Your task to perform on an android device: toggle translation in the chrome app Image 0: 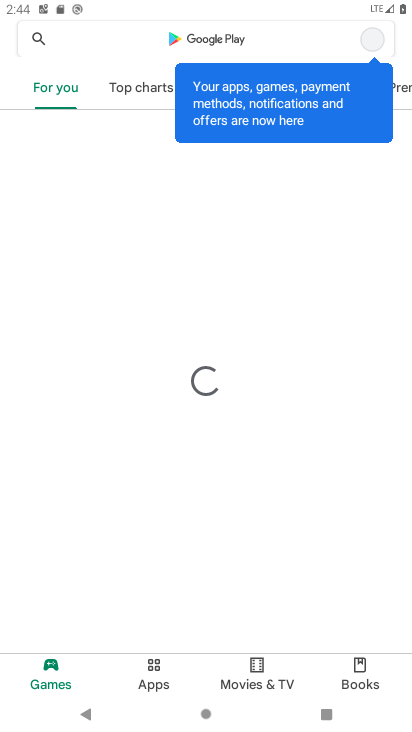
Step 0: press home button
Your task to perform on an android device: toggle translation in the chrome app Image 1: 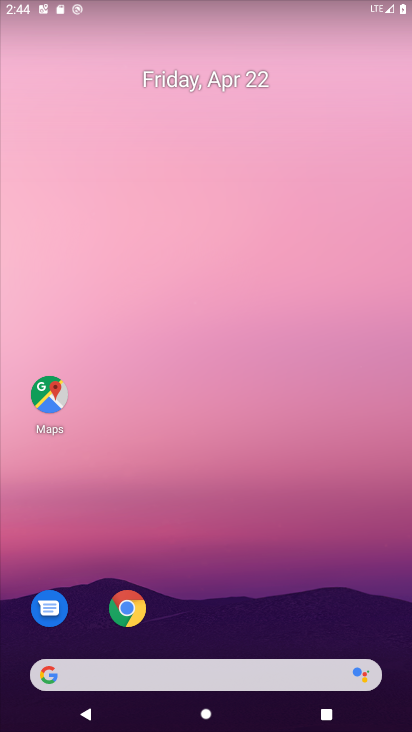
Step 1: drag from (267, 685) to (234, 132)
Your task to perform on an android device: toggle translation in the chrome app Image 2: 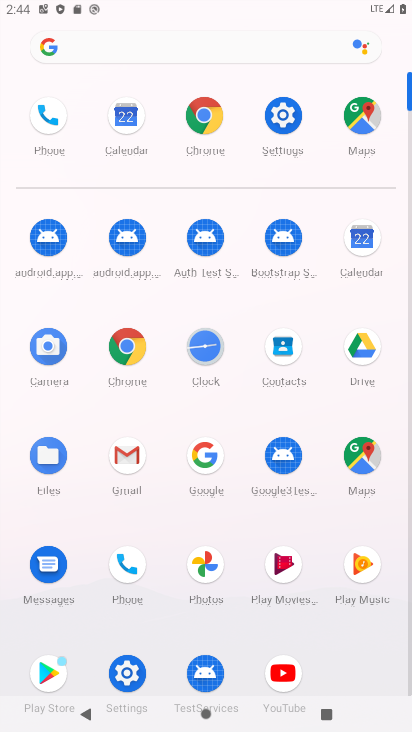
Step 2: click (213, 126)
Your task to perform on an android device: toggle translation in the chrome app Image 3: 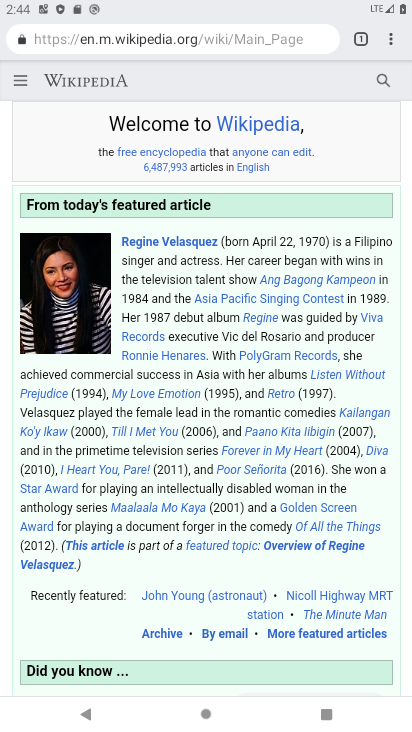
Step 3: click (384, 43)
Your task to perform on an android device: toggle translation in the chrome app Image 4: 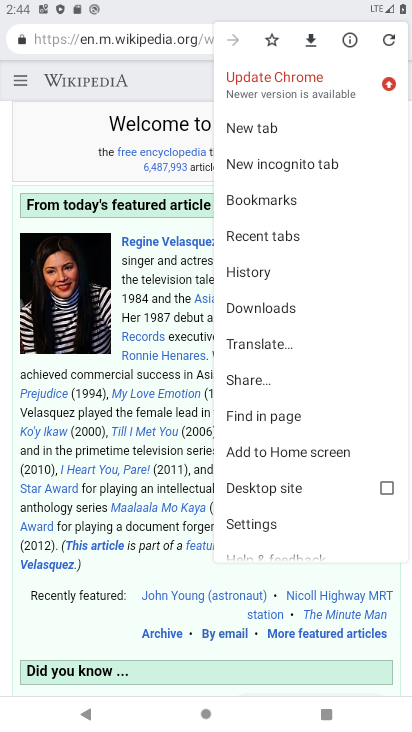
Step 4: click (239, 528)
Your task to perform on an android device: toggle translation in the chrome app Image 5: 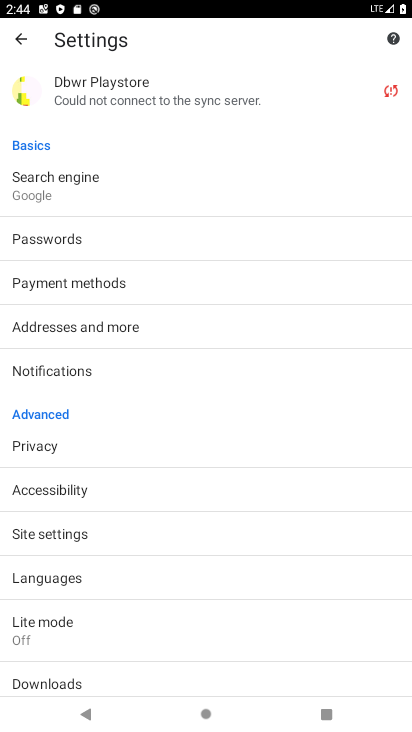
Step 5: click (66, 588)
Your task to perform on an android device: toggle translation in the chrome app Image 6: 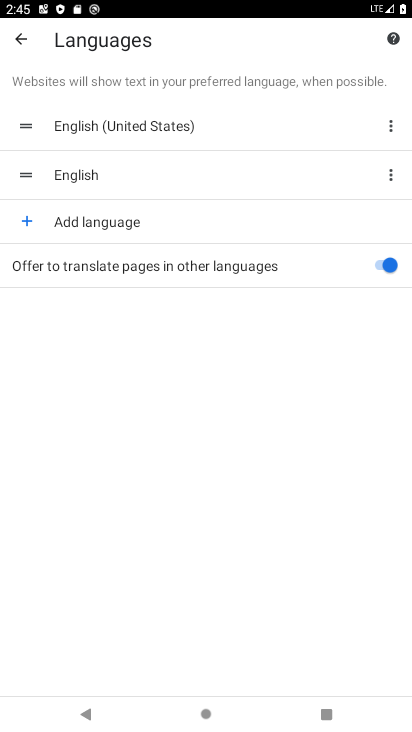
Step 6: click (325, 263)
Your task to perform on an android device: toggle translation in the chrome app Image 7: 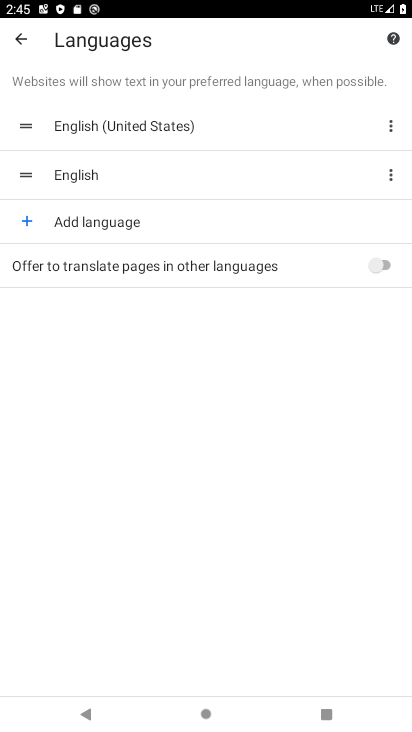
Step 7: click (325, 263)
Your task to perform on an android device: toggle translation in the chrome app Image 8: 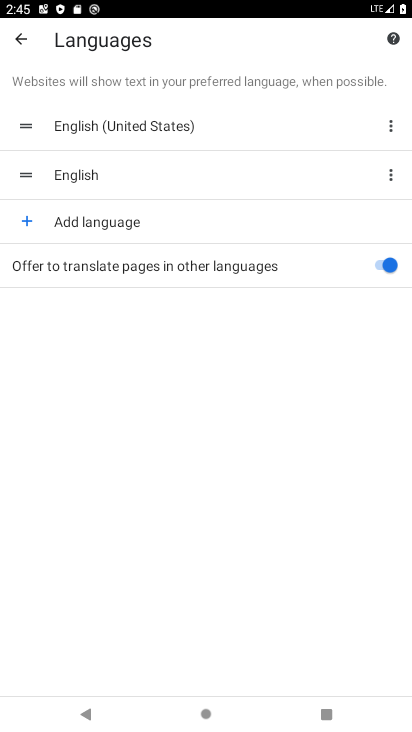
Step 8: task complete